Your task to perform on an android device: open the mobile data screen to see how much data has been used Image 0: 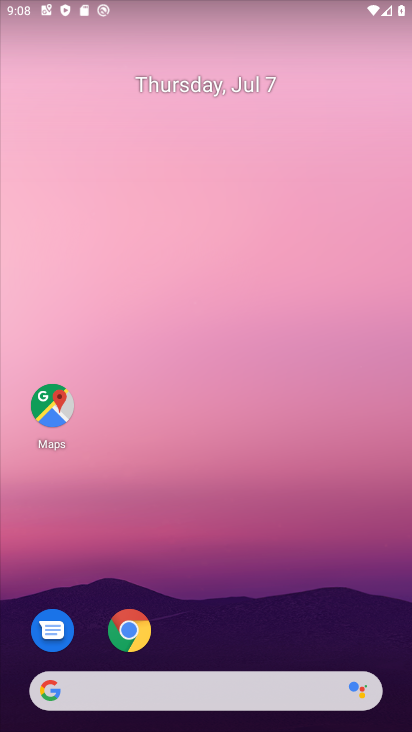
Step 0: drag from (213, 576) to (237, 136)
Your task to perform on an android device: open the mobile data screen to see how much data has been used Image 1: 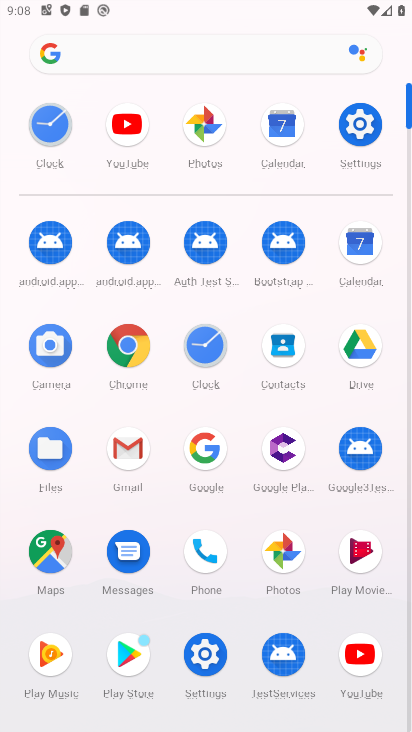
Step 1: click (357, 120)
Your task to perform on an android device: open the mobile data screen to see how much data has been used Image 2: 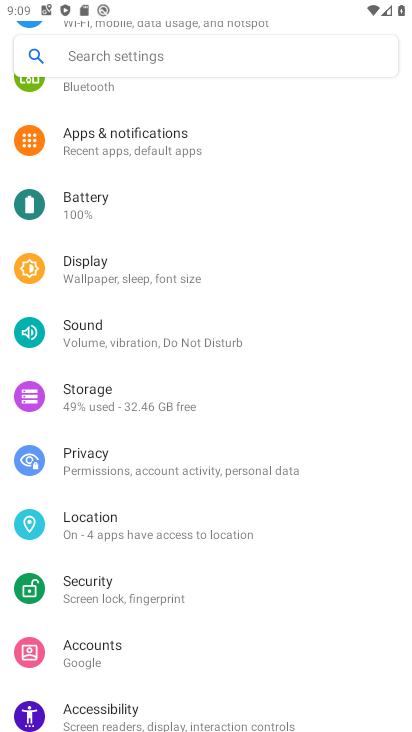
Step 2: drag from (154, 243) to (162, 629)
Your task to perform on an android device: open the mobile data screen to see how much data has been used Image 3: 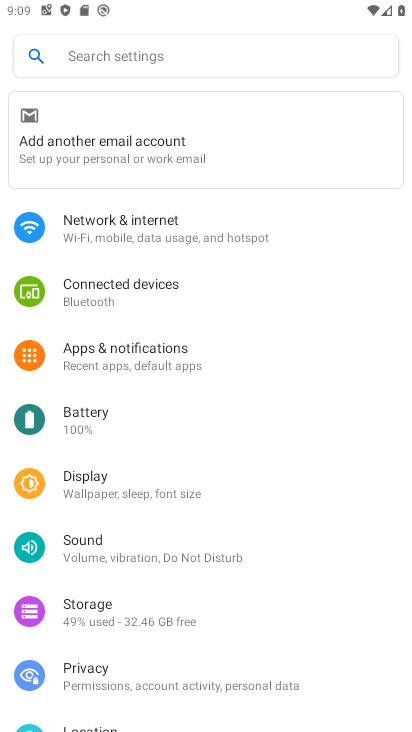
Step 3: click (182, 244)
Your task to perform on an android device: open the mobile data screen to see how much data has been used Image 4: 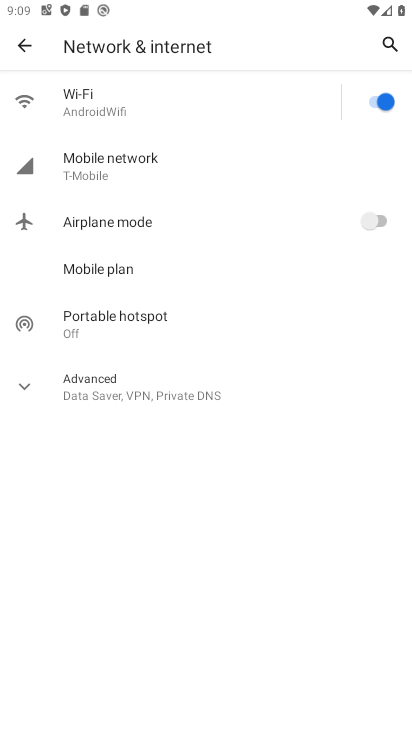
Step 4: click (131, 156)
Your task to perform on an android device: open the mobile data screen to see how much data has been used Image 5: 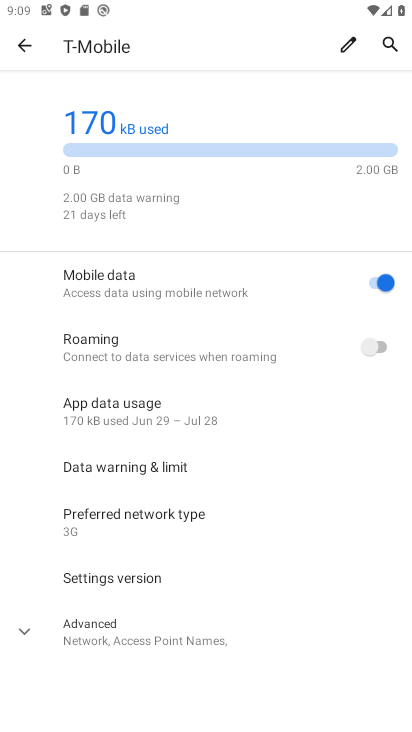
Step 5: click (185, 430)
Your task to perform on an android device: open the mobile data screen to see how much data has been used Image 6: 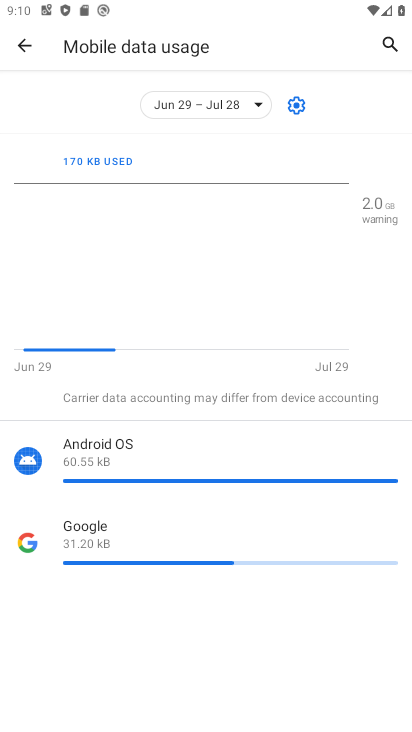
Step 6: task complete